Your task to perform on an android device: show emergency info Image 0: 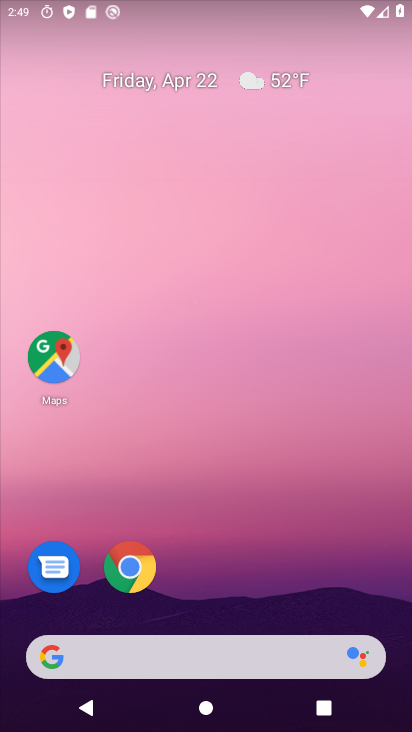
Step 0: drag from (280, 590) to (253, 3)
Your task to perform on an android device: show emergency info Image 1: 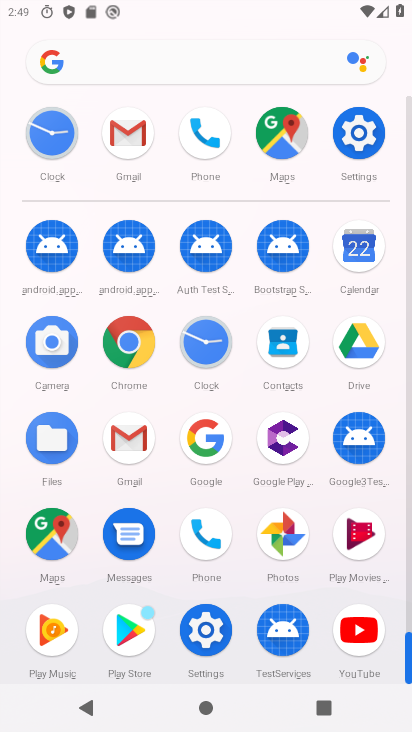
Step 1: click (350, 139)
Your task to perform on an android device: show emergency info Image 2: 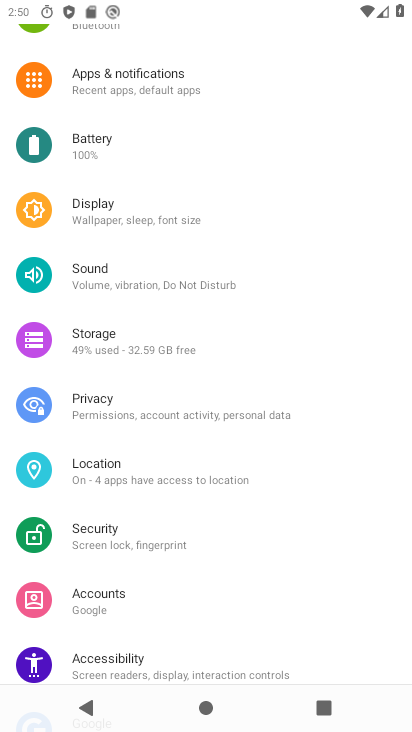
Step 2: drag from (219, 610) to (243, 89)
Your task to perform on an android device: show emergency info Image 3: 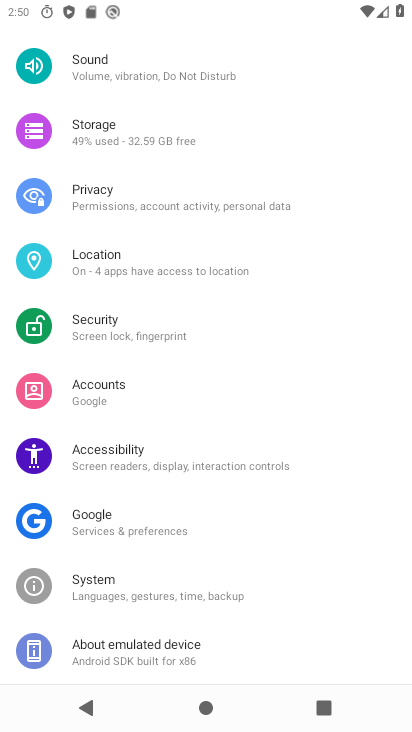
Step 3: drag from (249, 579) to (219, 241)
Your task to perform on an android device: show emergency info Image 4: 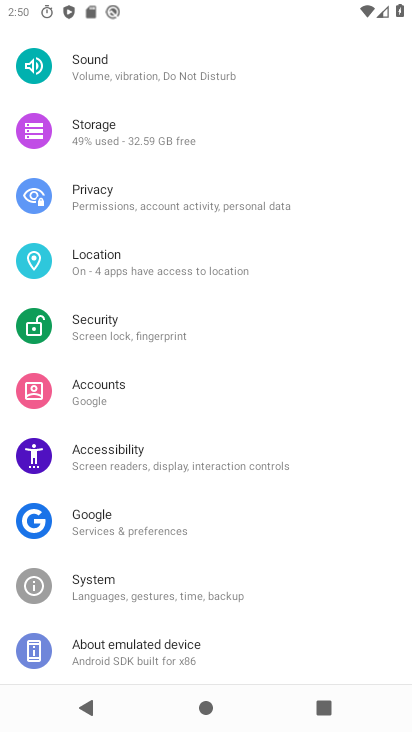
Step 4: click (170, 645)
Your task to perform on an android device: show emergency info Image 5: 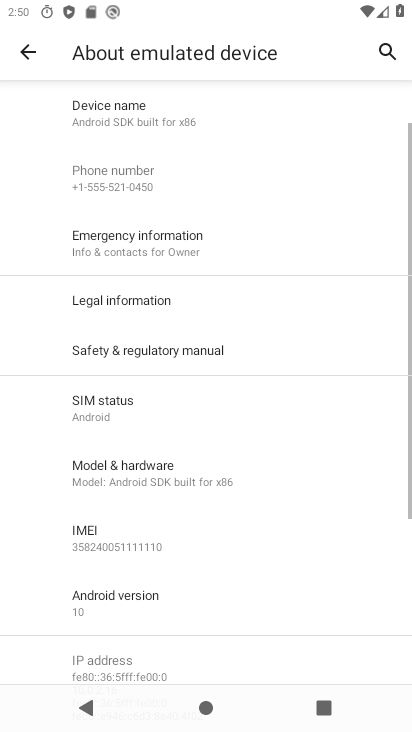
Step 5: click (176, 231)
Your task to perform on an android device: show emergency info Image 6: 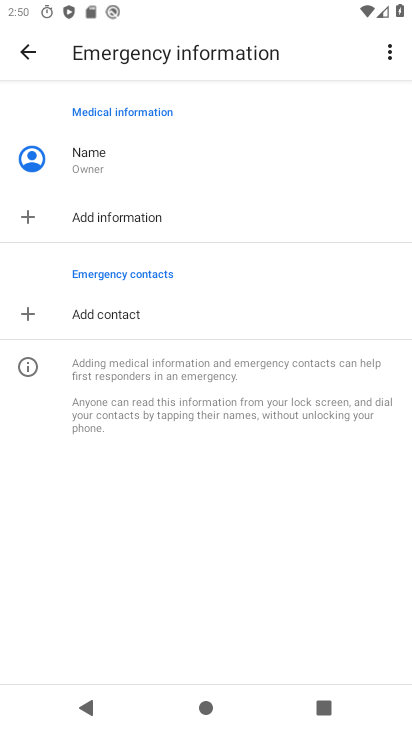
Step 6: task complete